Your task to perform on an android device: Go to Amazon Image 0: 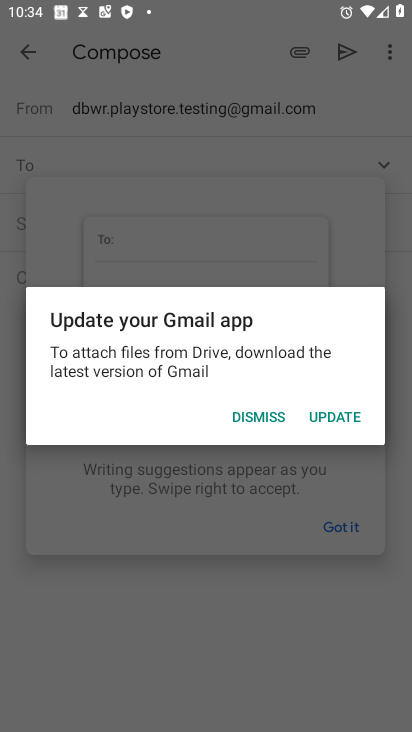
Step 0: press home button
Your task to perform on an android device: Go to Amazon Image 1: 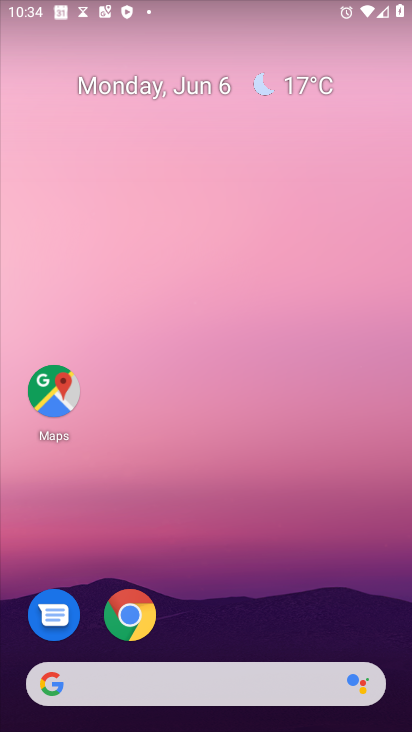
Step 1: click (134, 613)
Your task to perform on an android device: Go to Amazon Image 2: 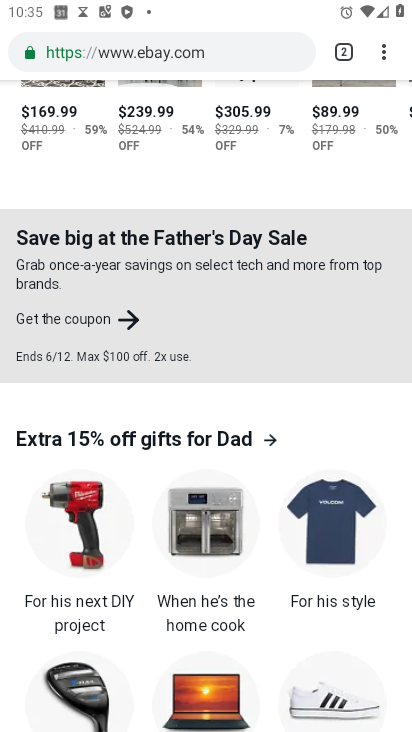
Step 2: click (340, 42)
Your task to perform on an android device: Go to Amazon Image 3: 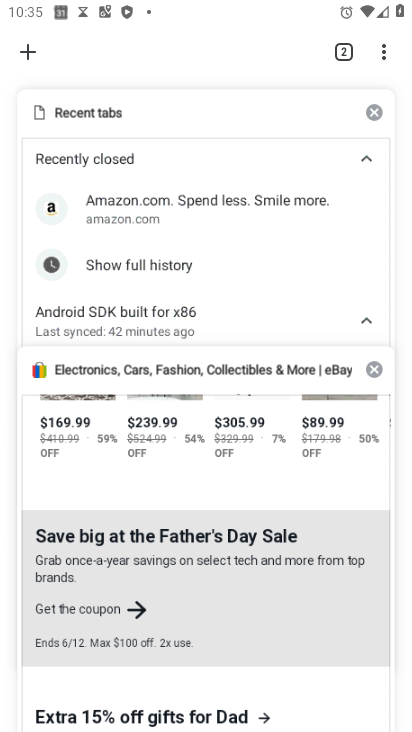
Step 3: click (374, 111)
Your task to perform on an android device: Go to Amazon Image 4: 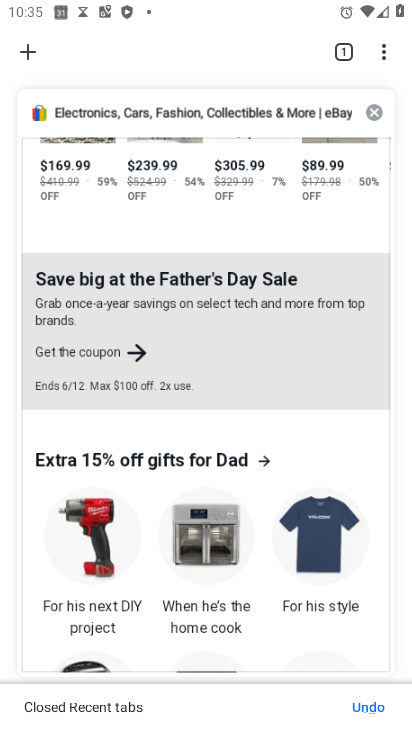
Step 4: click (374, 106)
Your task to perform on an android device: Go to Amazon Image 5: 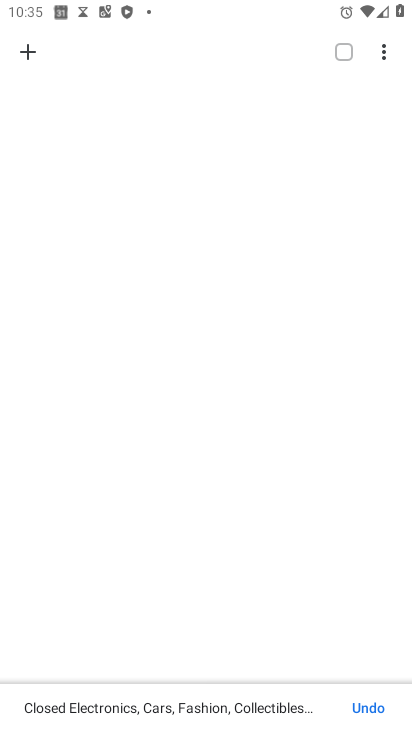
Step 5: click (35, 44)
Your task to perform on an android device: Go to Amazon Image 6: 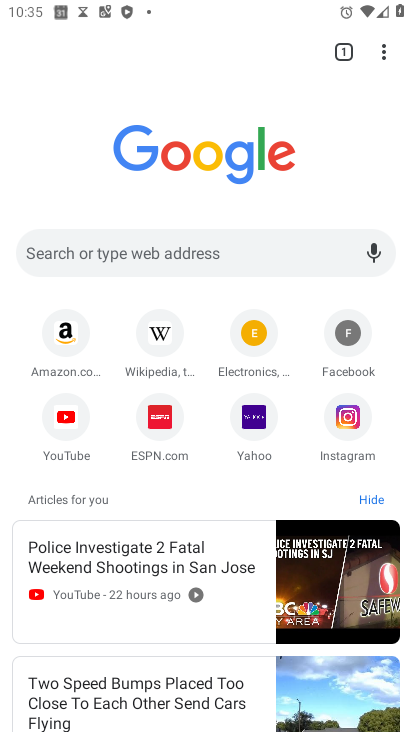
Step 6: click (61, 321)
Your task to perform on an android device: Go to Amazon Image 7: 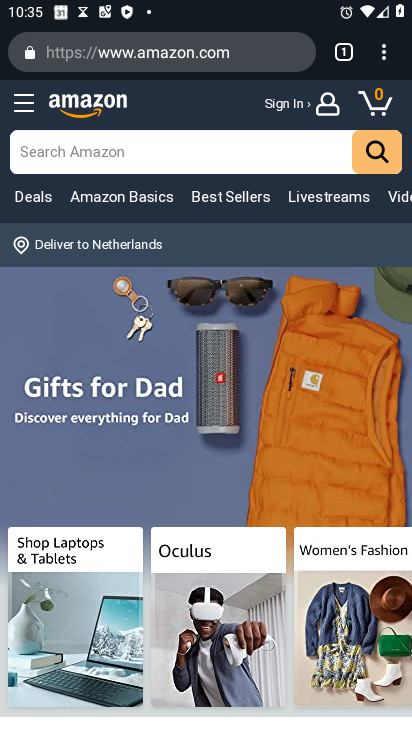
Step 7: task complete